Your task to perform on an android device: Go to CNN.com Image 0: 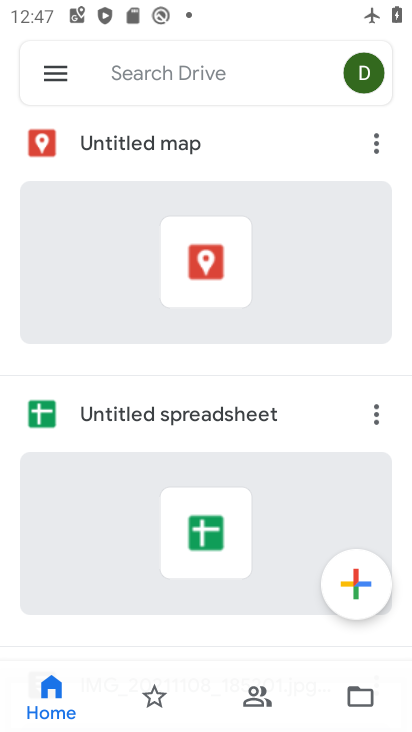
Step 0: press home button
Your task to perform on an android device: Go to CNN.com Image 1: 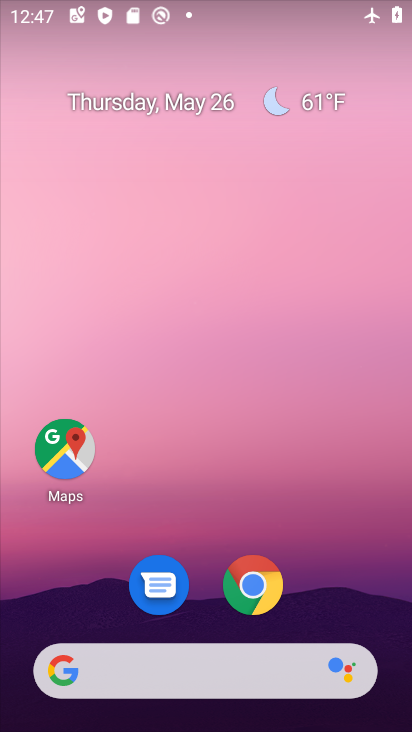
Step 1: click (252, 678)
Your task to perform on an android device: Go to CNN.com Image 2: 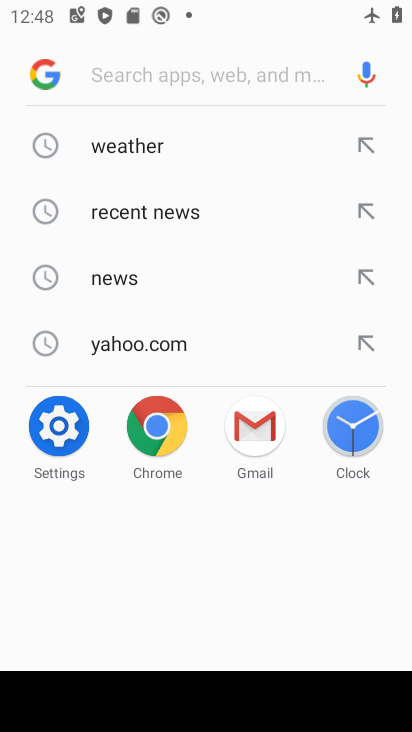
Step 2: type "cnn.com"
Your task to perform on an android device: Go to CNN.com Image 3: 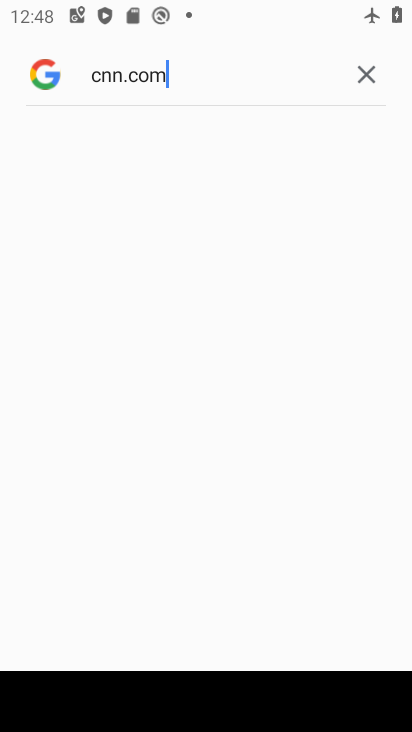
Step 3: task complete